Your task to perform on an android device: uninstall "Spotify" Image 0: 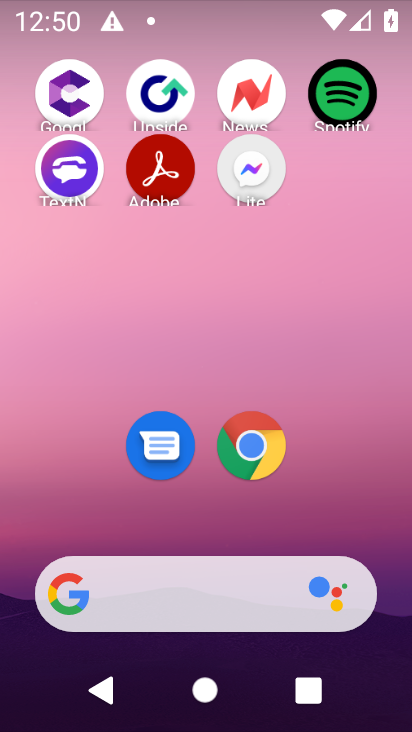
Step 0: click (333, 104)
Your task to perform on an android device: uninstall "Spotify" Image 1: 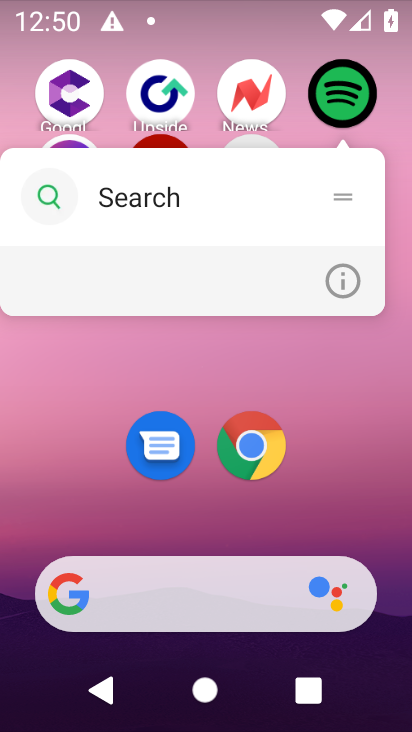
Step 1: click (350, 291)
Your task to perform on an android device: uninstall "Spotify" Image 2: 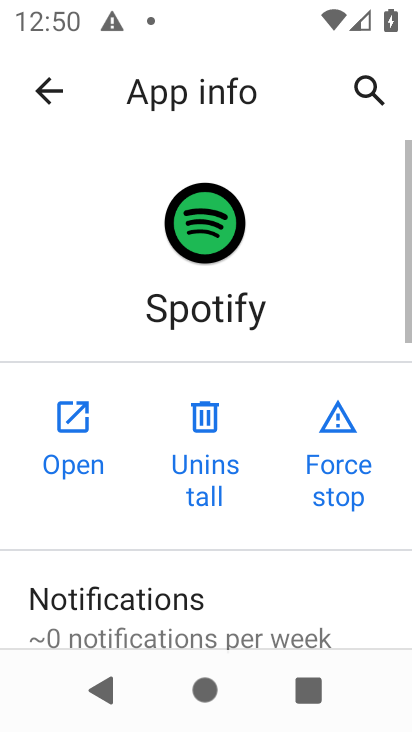
Step 2: click (203, 430)
Your task to perform on an android device: uninstall "Spotify" Image 3: 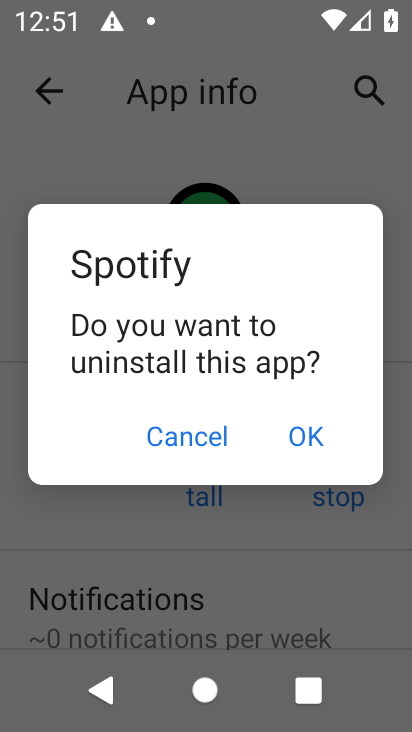
Step 3: click (310, 438)
Your task to perform on an android device: uninstall "Spotify" Image 4: 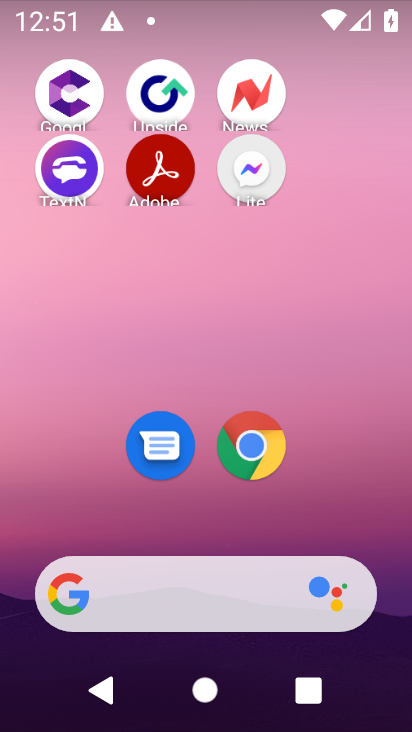
Step 4: task complete